Your task to perform on an android device: refresh tabs in the chrome app Image 0: 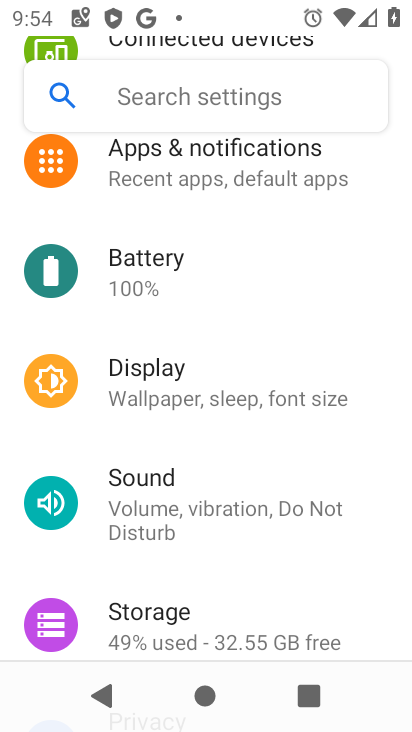
Step 0: press home button
Your task to perform on an android device: refresh tabs in the chrome app Image 1: 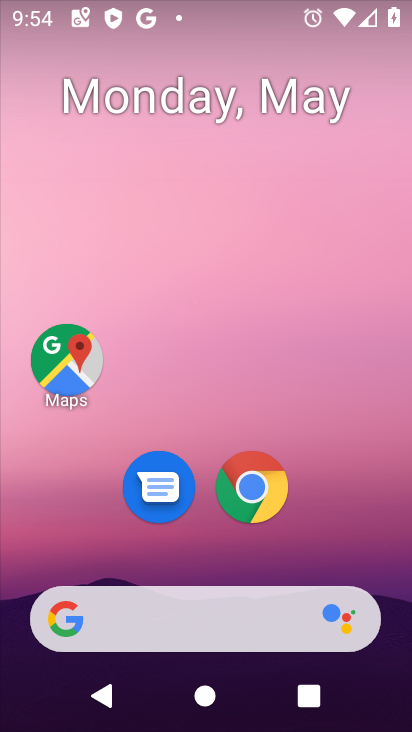
Step 1: click (259, 479)
Your task to perform on an android device: refresh tabs in the chrome app Image 2: 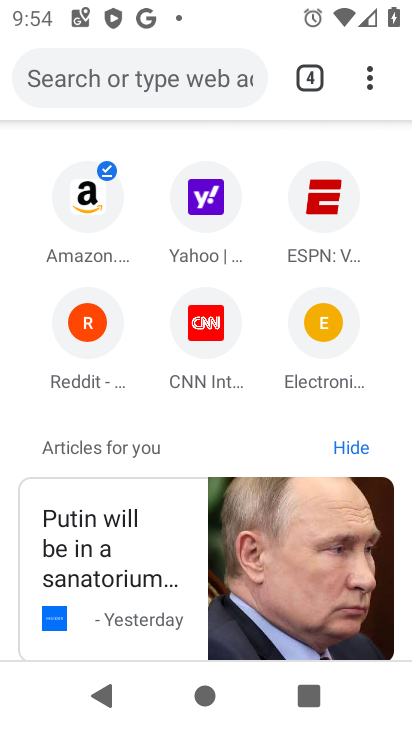
Step 2: click (372, 97)
Your task to perform on an android device: refresh tabs in the chrome app Image 3: 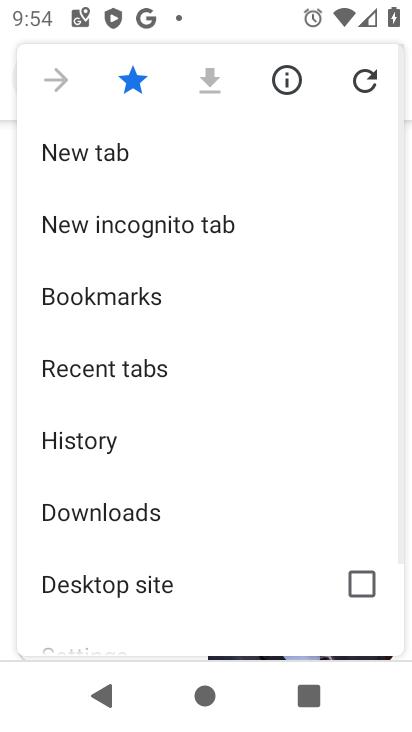
Step 3: click (371, 77)
Your task to perform on an android device: refresh tabs in the chrome app Image 4: 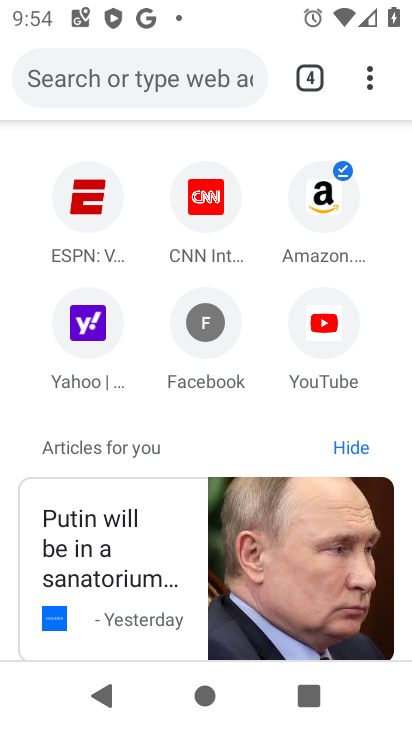
Step 4: task complete